Your task to perform on an android device: empty trash in google photos Image 0: 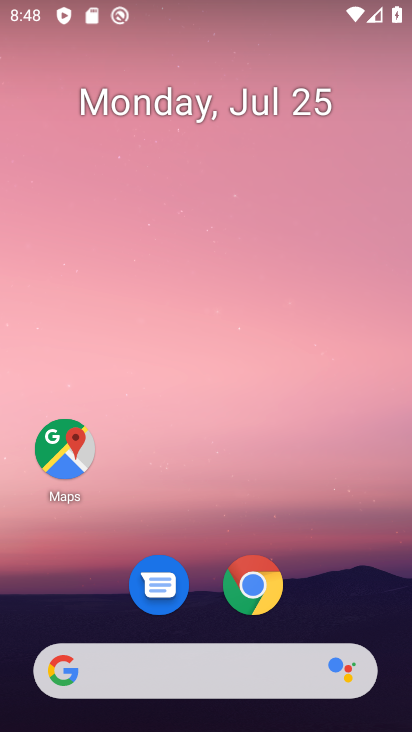
Step 0: press home button
Your task to perform on an android device: empty trash in google photos Image 1: 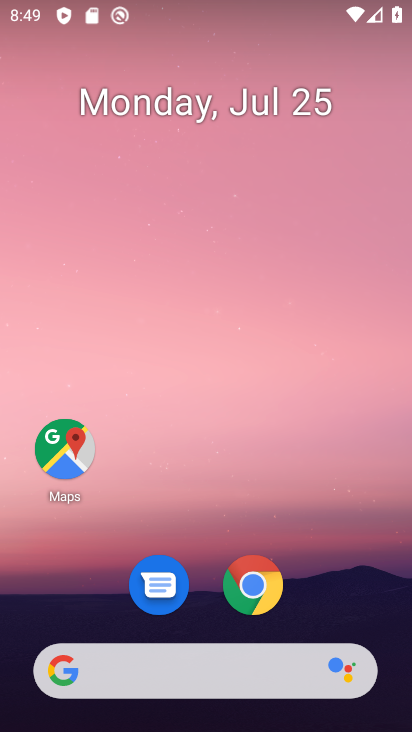
Step 1: drag from (237, 671) to (372, 69)
Your task to perform on an android device: empty trash in google photos Image 2: 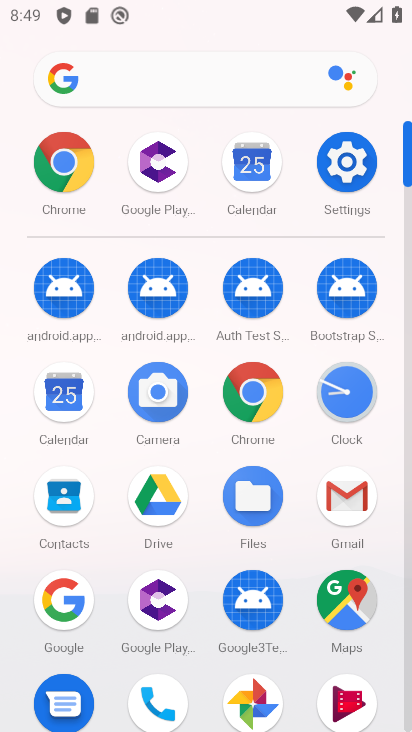
Step 2: drag from (213, 647) to (308, 140)
Your task to perform on an android device: empty trash in google photos Image 3: 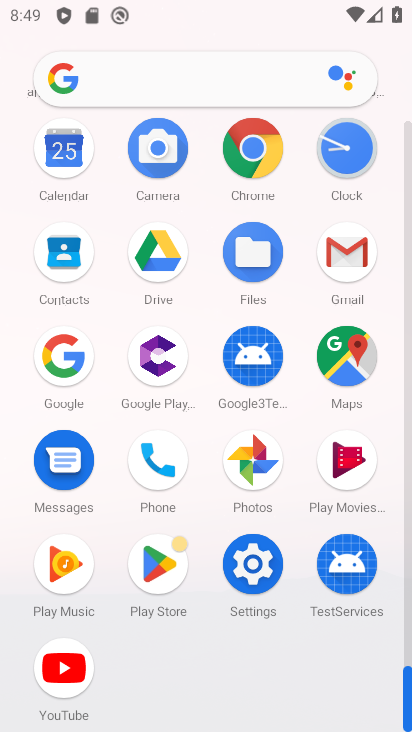
Step 3: click (258, 471)
Your task to perform on an android device: empty trash in google photos Image 4: 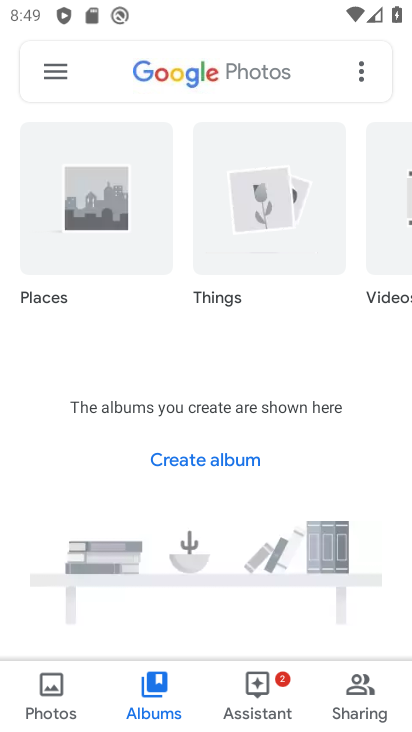
Step 4: click (53, 69)
Your task to perform on an android device: empty trash in google photos Image 5: 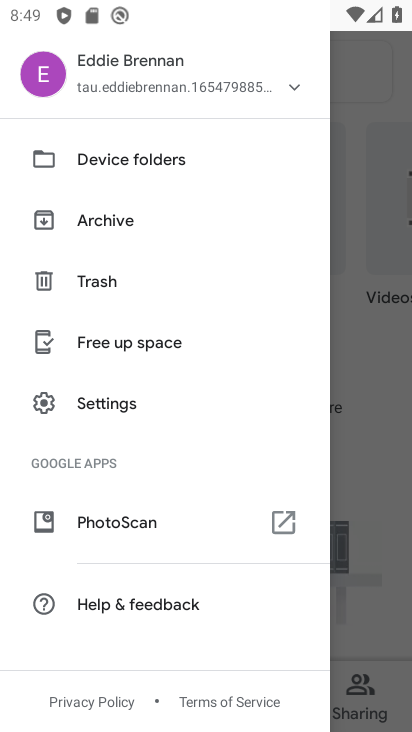
Step 5: click (108, 280)
Your task to perform on an android device: empty trash in google photos Image 6: 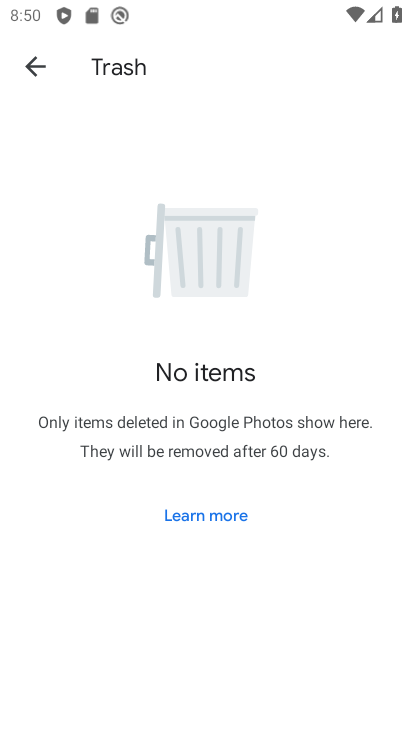
Step 6: task complete